Your task to perform on an android device: Set the phone to "Do not disturb". Image 0: 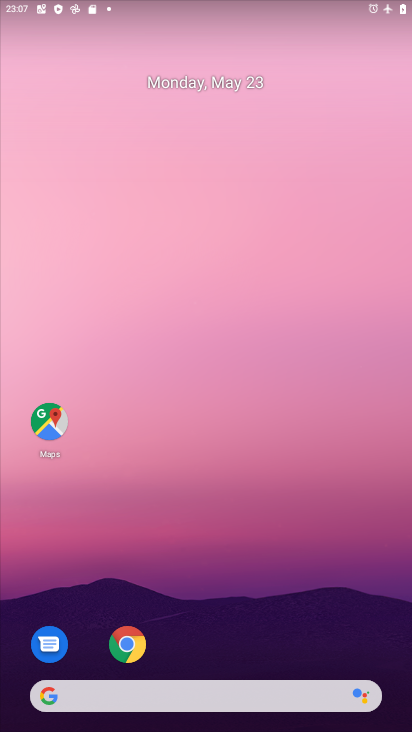
Step 0: drag from (271, 728) to (394, 130)
Your task to perform on an android device: Set the phone to "Do not disturb". Image 1: 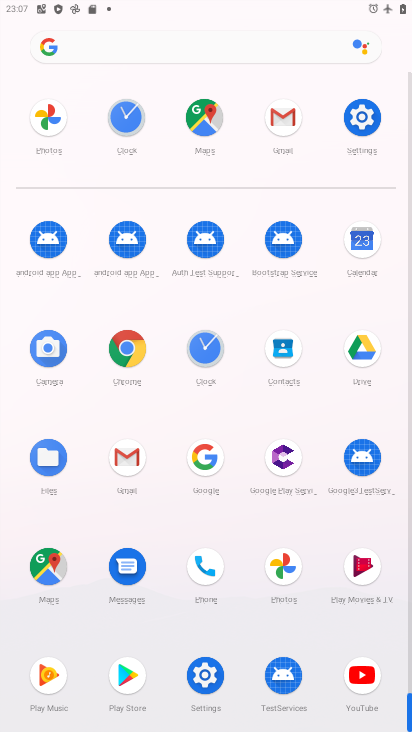
Step 1: click (378, 117)
Your task to perform on an android device: Set the phone to "Do not disturb". Image 2: 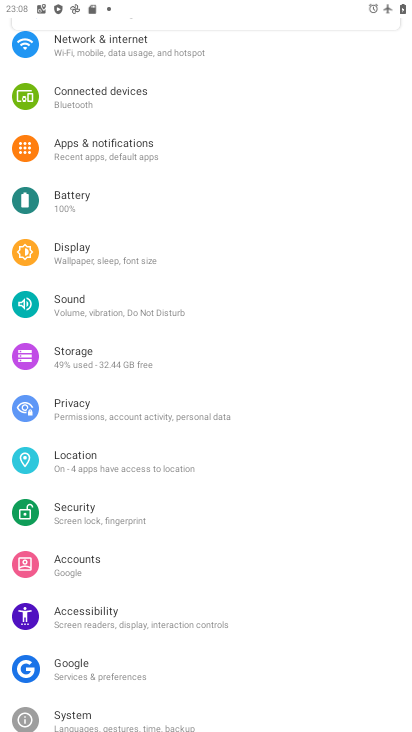
Step 2: click (131, 306)
Your task to perform on an android device: Set the phone to "Do not disturb". Image 3: 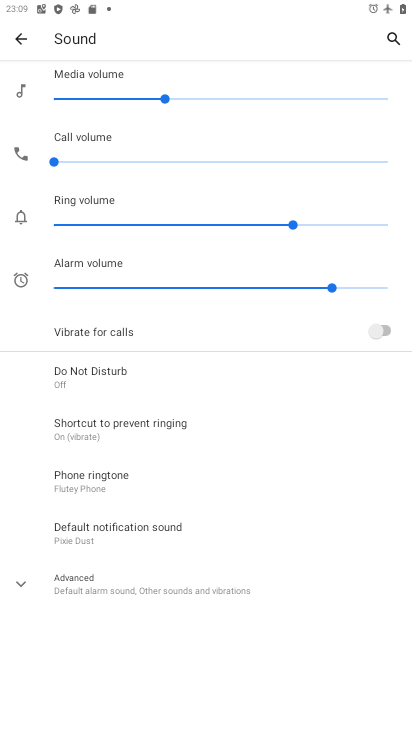
Step 3: click (137, 368)
Your task to perform on an android device: Set the phone to "Do not disturb". Image 4: 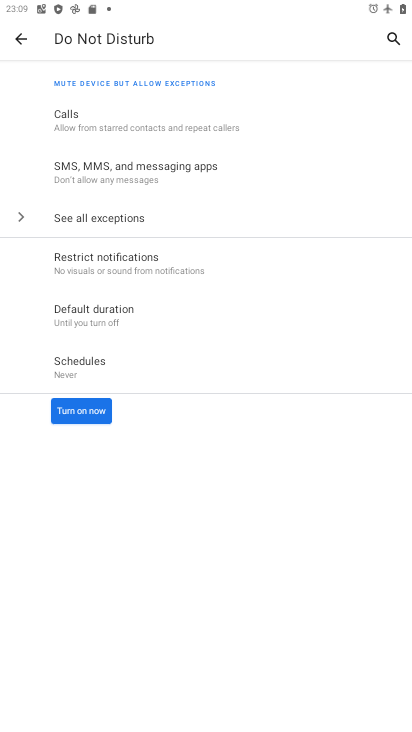
Step 4: click (67, 406)
Your task to perform on an android device: Set the phone to "Do not disturb". Image 5: 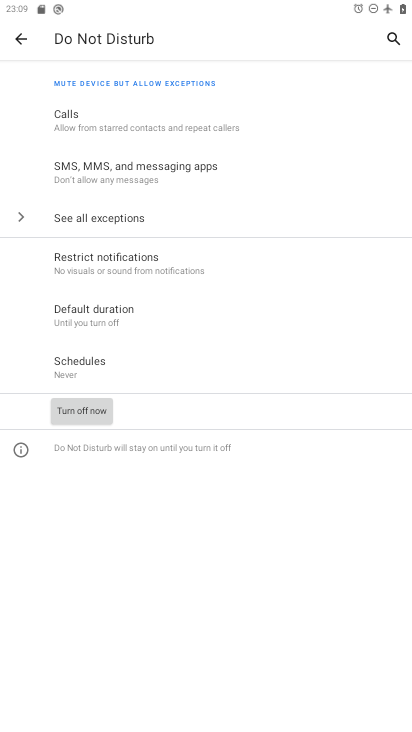
Step 5: task complete